Your task to perform on an android device: Open settings Image 0: 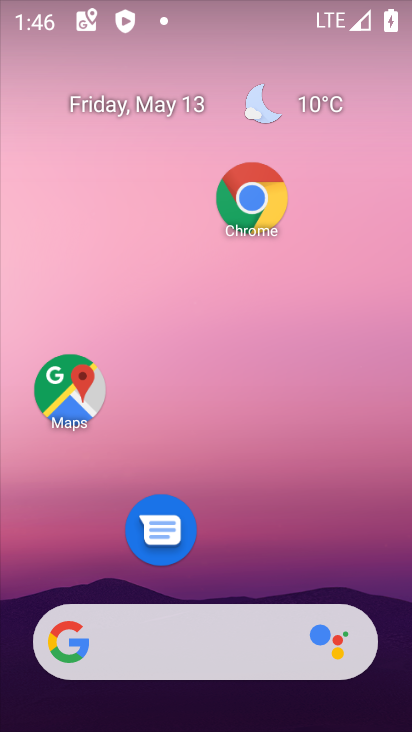
Step 0: drag from (186, 590) to (119, 0)
Your task to perform on an android device: Open settings Image 1: 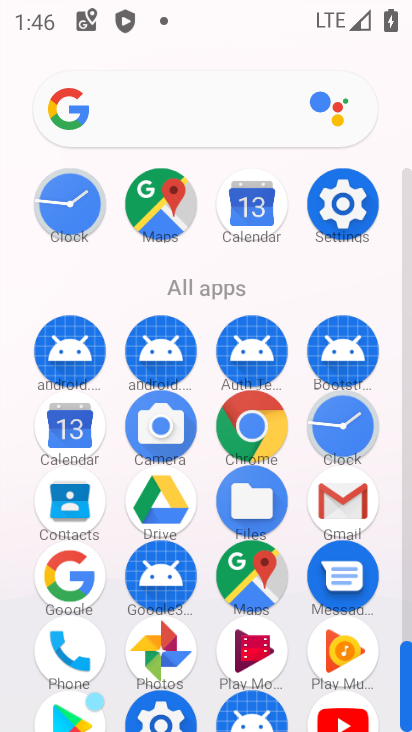
Step 1: click (341, 209)
Your task to perform on an android device: Open settings Image 2: 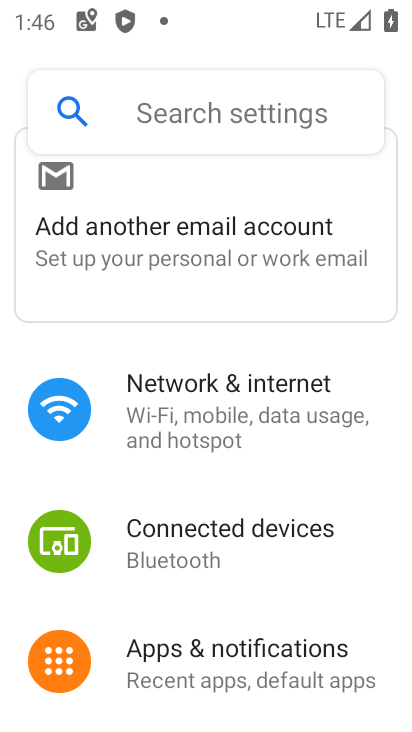
Step 2: task complete